Your task to perform on an android device: Search for pizza restaurants on Maps Image 0: 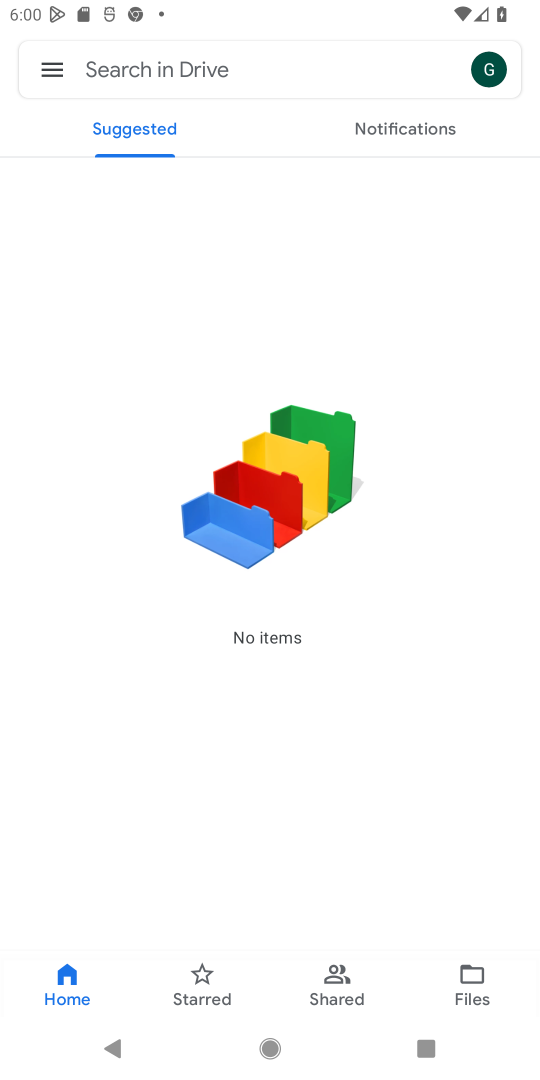
Step 0: press home button
Your task to perform on an android device: Search for pizza restaurants on Maps Image 1: 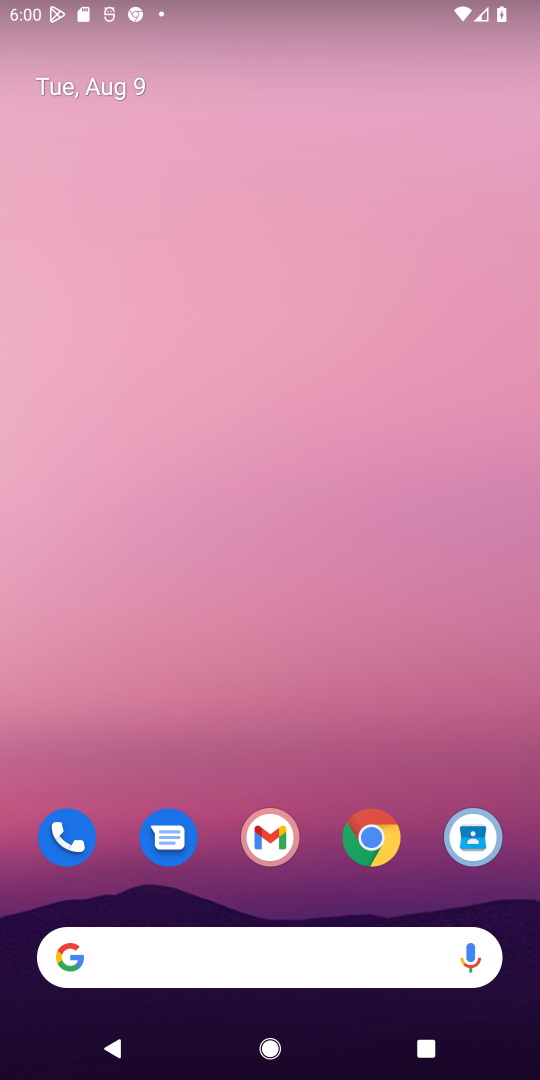
Step 1: drag from (248, 927) to (407, 367)
Your task to perform on an android device: Search for pizza restaurants on Maps Image 2: 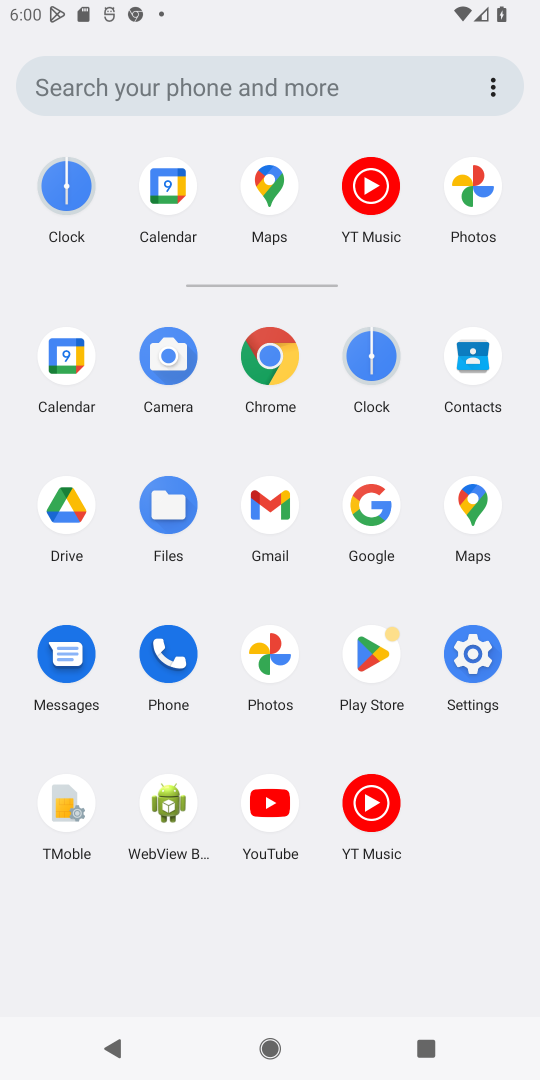
Step 2: click (469, 500)
Your task to perform on an android device: Search for pizza restaurants on Maps Image 3: 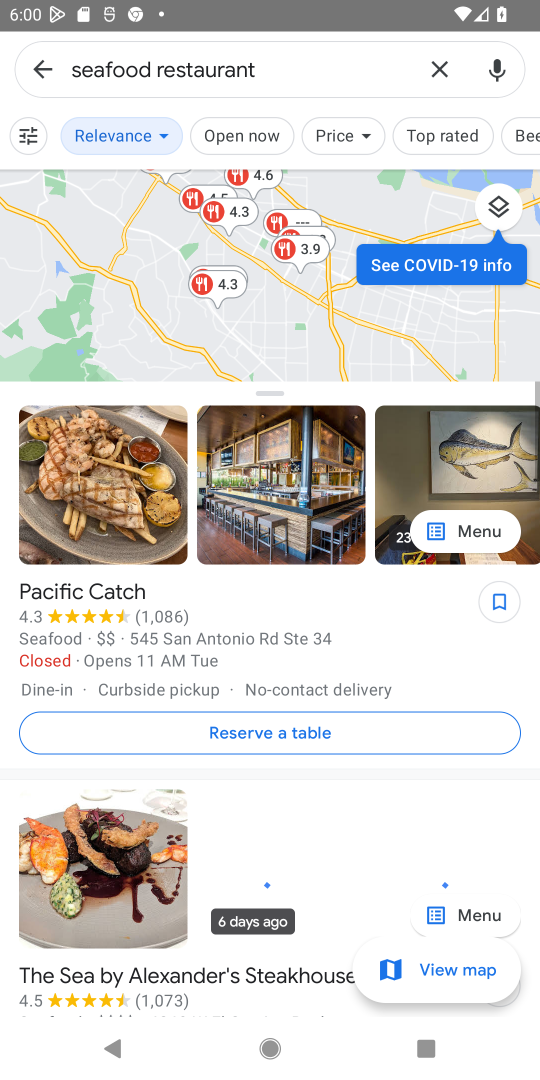
Step 3: click (436, 69)
Your task to perform on an android device: Search for pizza restaurants on Maps Image 4: 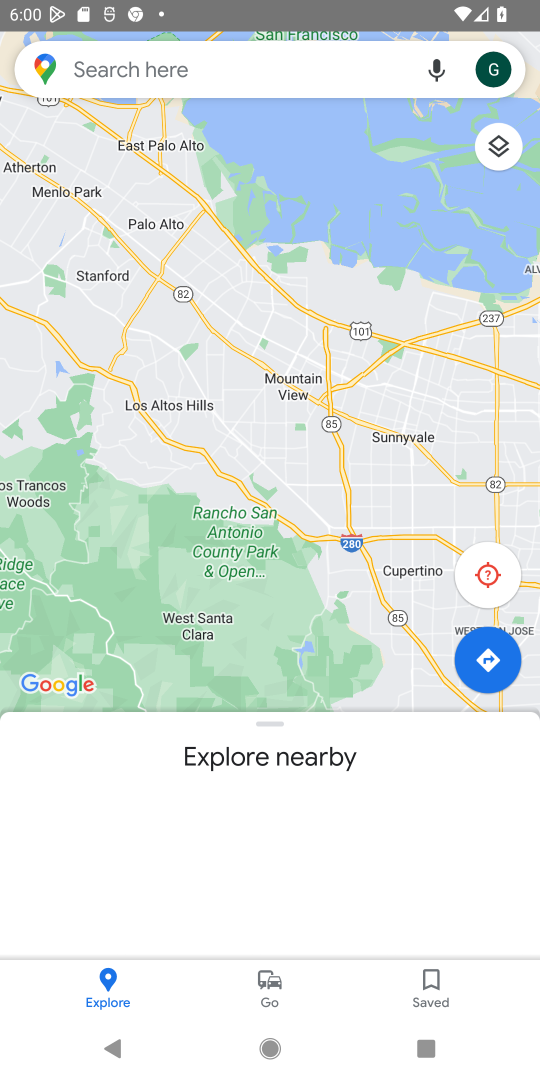
Step 4: click (216, 66)
Your task to perform on an android device: Search for pizza restaurants on Maps Image 5: 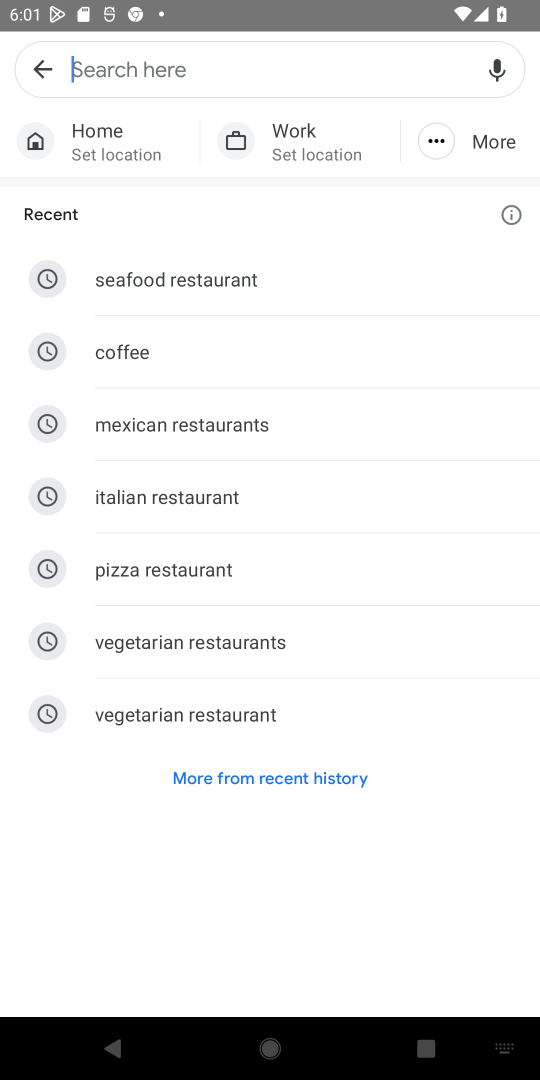
Step 5: click (202, 563)
Your task to perform on an android device: Search for pizza restaurants on Maps Image 6: 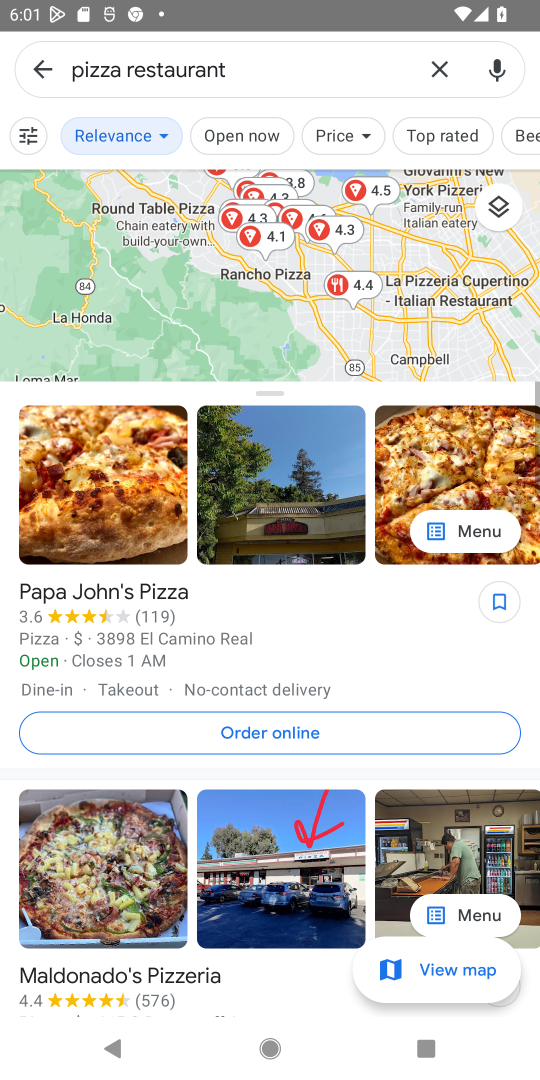
Step 6: task complete